Your task to perform on an android device: Go to sound settings Image 0: 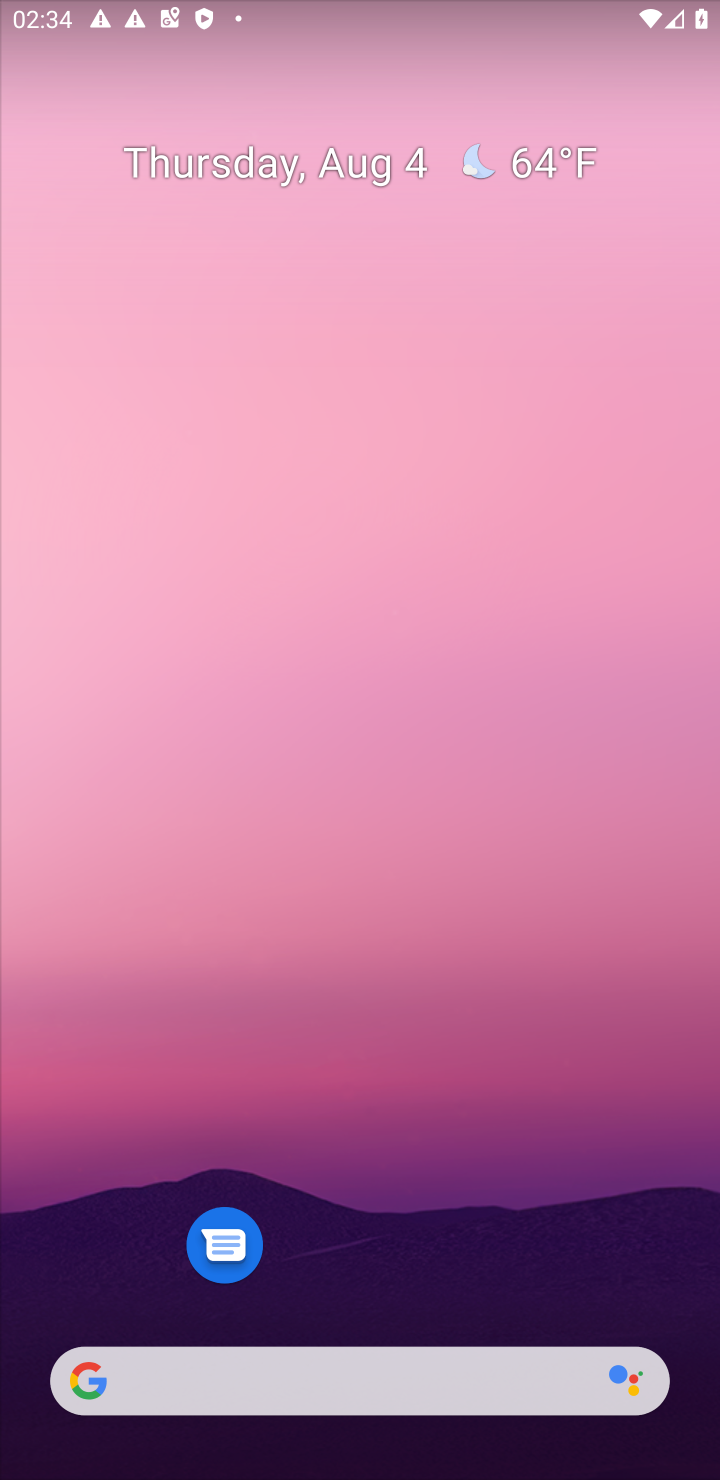
Step 0: drag from (277, 1350) to (549, 338)
Your task to perform on an android device: Go to sound settings Image 1: 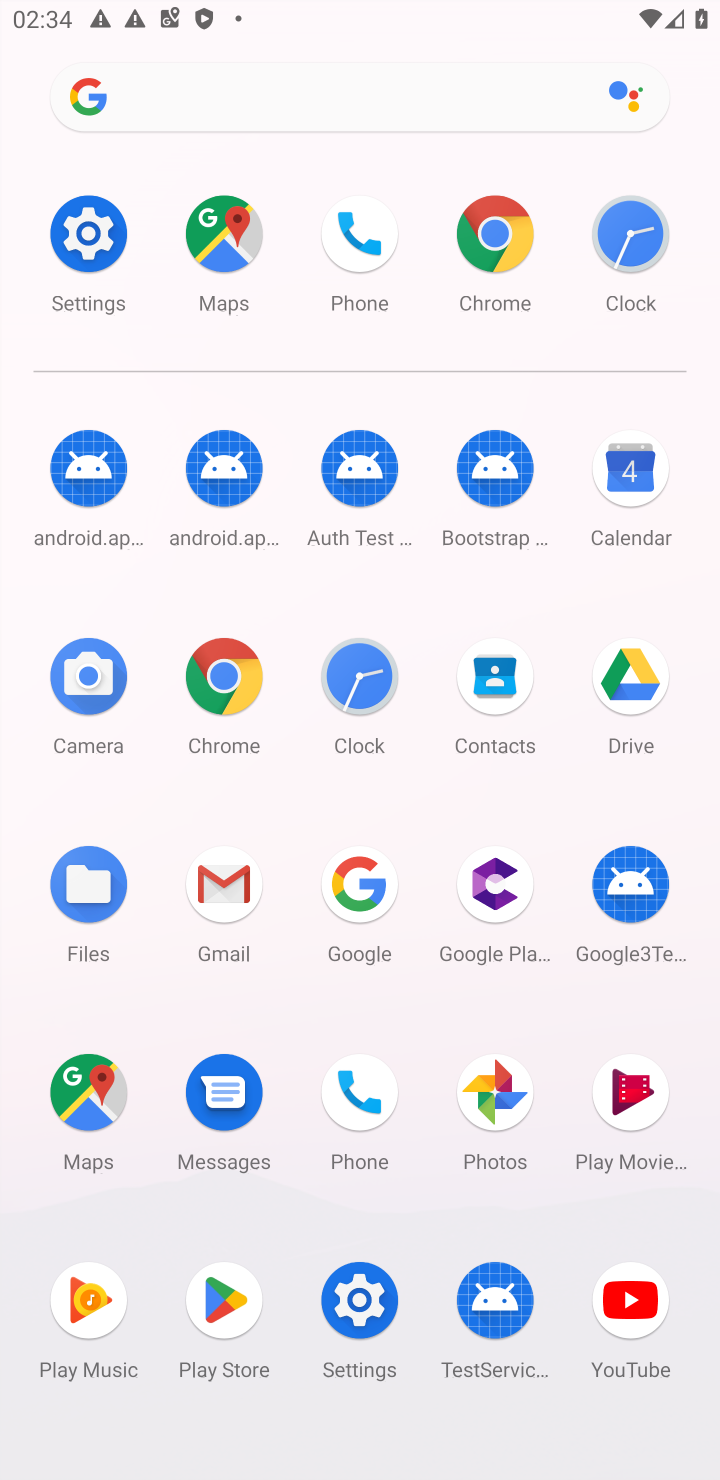
Step 1: click (72, 210)
Your task to perform on an android device: Go to sound settings Image 2: 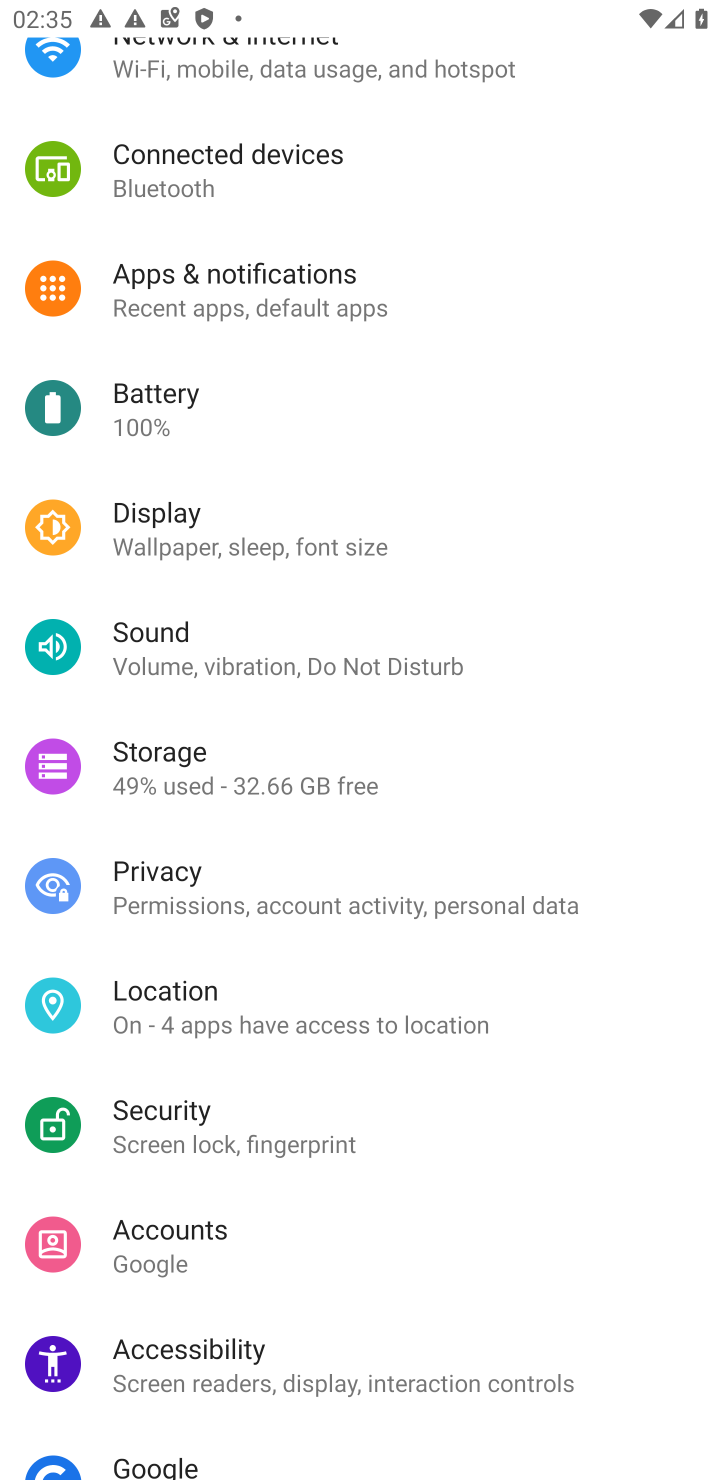
Step 2: click (211, 620)
Your task to perform on an android device: Go to sound settings Image 3: 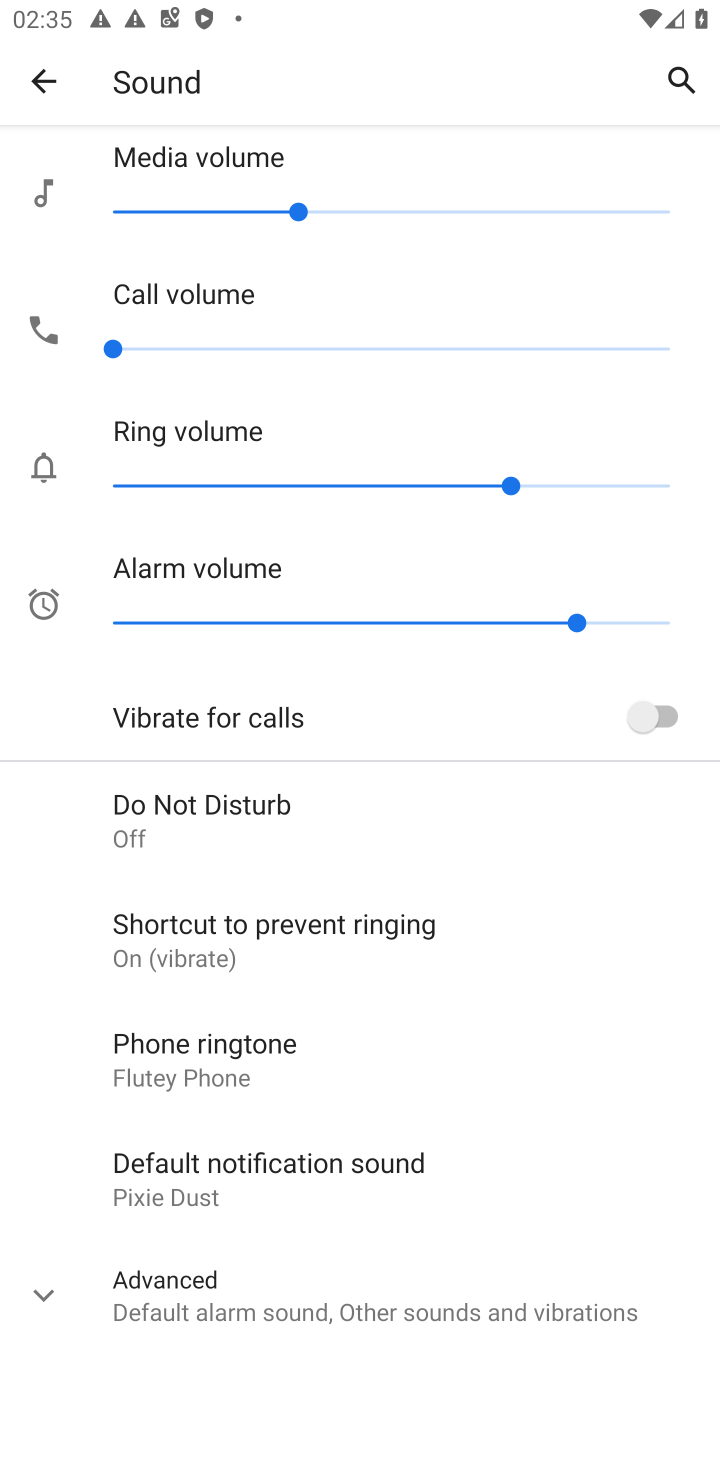
Step 3: task complete